Your task to perform on an android device: Open the phone app and click the voicemail tab. Image 0: 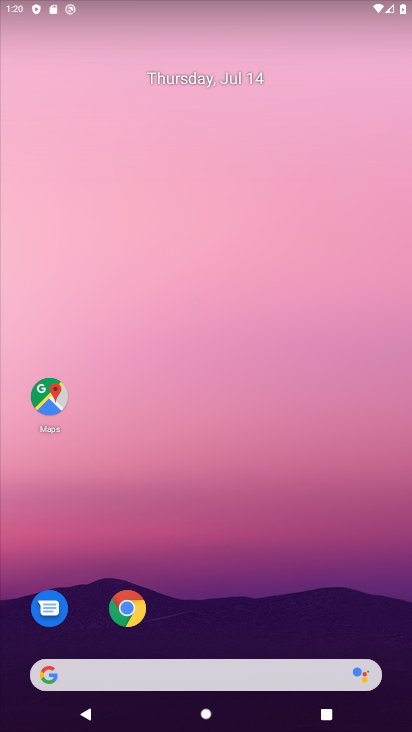
Step 0: drag from (174, 639) to (151, 363)
Your task to perform on an android device: Open the phone app and click the voicemail tab. Image 1: 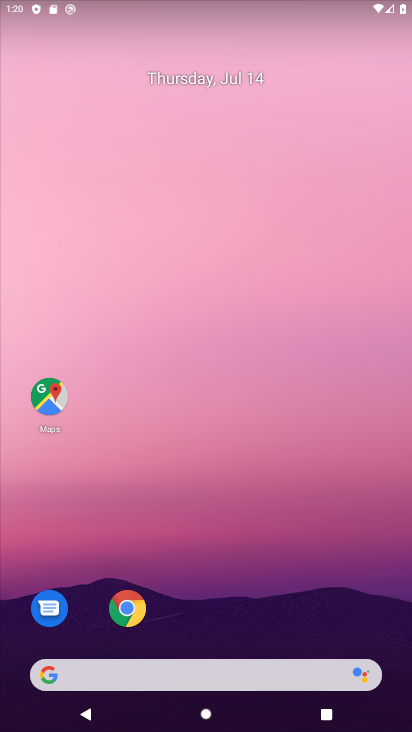
Step 1: drag from (267, 653) to (265, 5)
Your task to perform on an android device: Open the phone app and click the voicemail tab. Image 2: 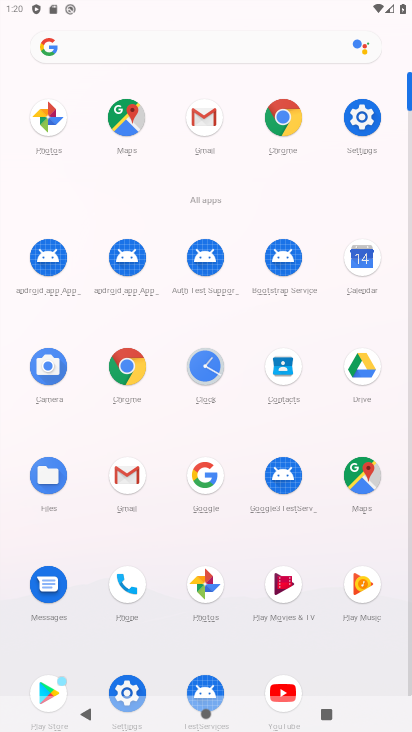
Step 2: click (123, 606)
Your task to perform on an android device: Open the phone app and click the voicemail tab. Image 3: 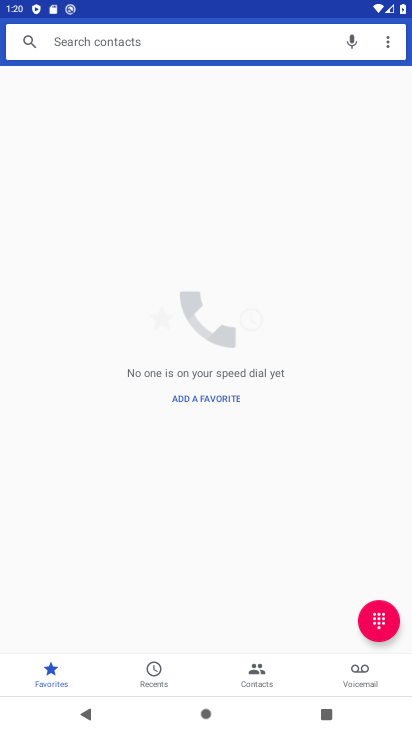
Step 3: click (354, 666)
Your task to perform on an android device: Open the phone app and click the voicemail tab. Image 4: 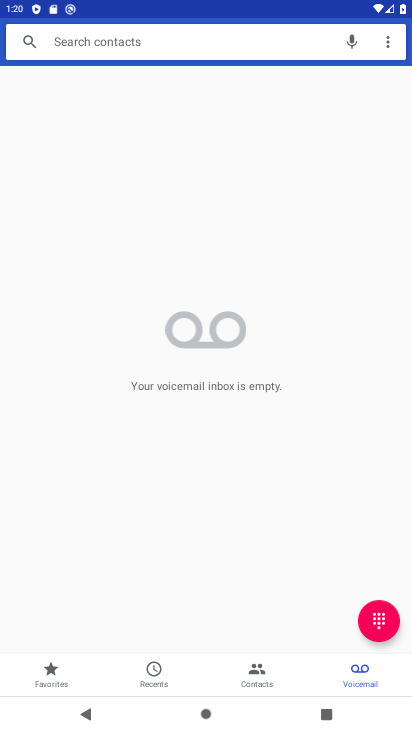
Step 4: task complete